Your task to perform on an android device: Add beats solo 3 to the cart on ebay, then select checkout. Image 0: 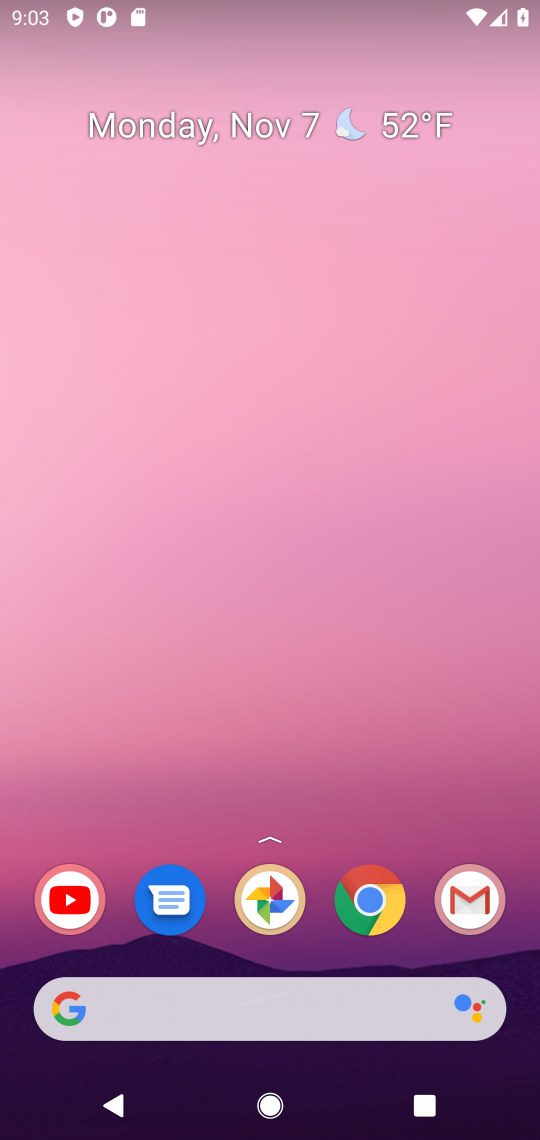
Step 0: click (226, 1010)
Your task to perform on an android device: Add beats solo 3 to the cart on ebay, then select checkout. Image 1: 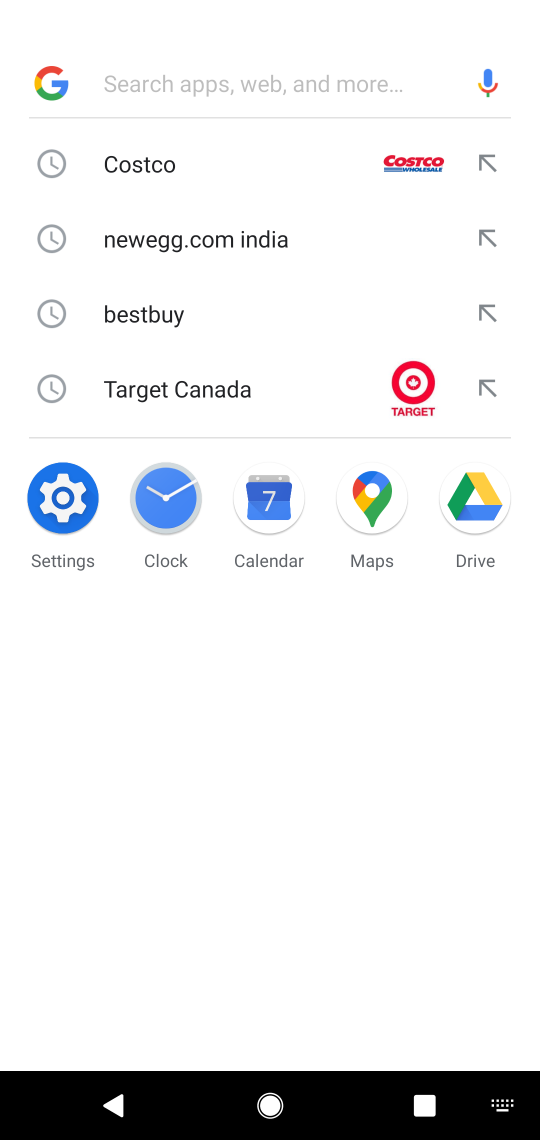
Step 1: type "ebay.com"
Your task to perform on an android device: Add beats solo 3 to the cart on ebay, then select checkout. Image 2: 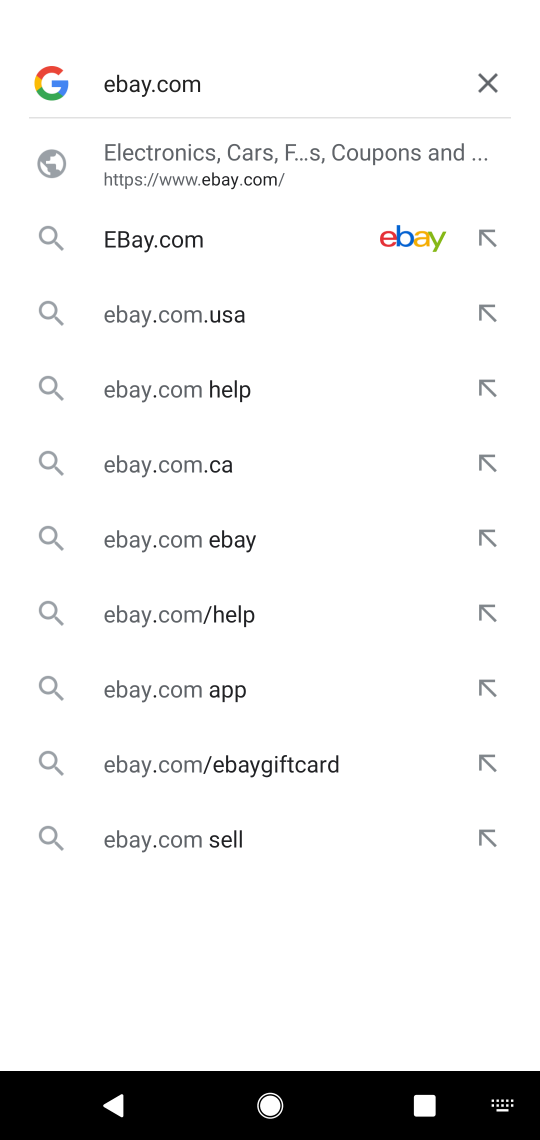
Step 2: click (222, 139)
Your task to perform on an android device: Add beats solo 3 to the cart on ebay, then select checkout. Image 3: 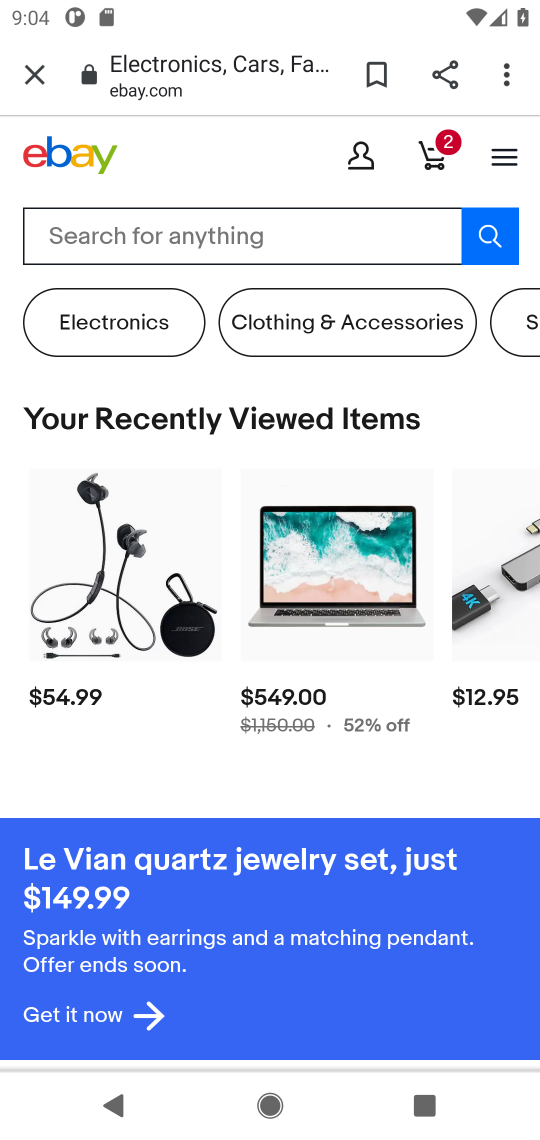
Step 3: task complete